Your task to perform on an android device: snooze an email in the gmail app Image 0: 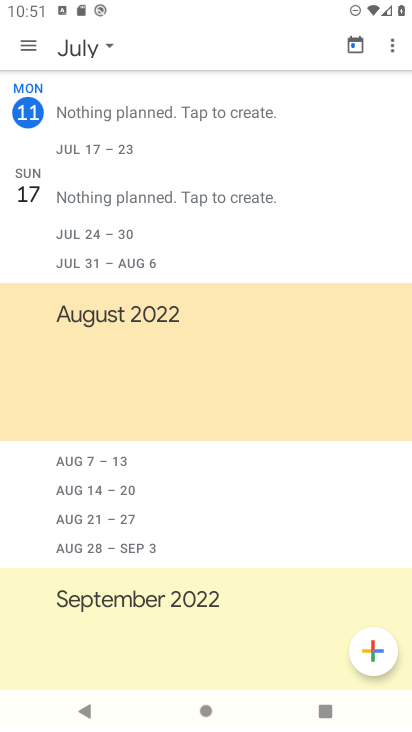
Step 0: press home button
Your task to perform on an android device: snooze an email in the gmail app Image 1: 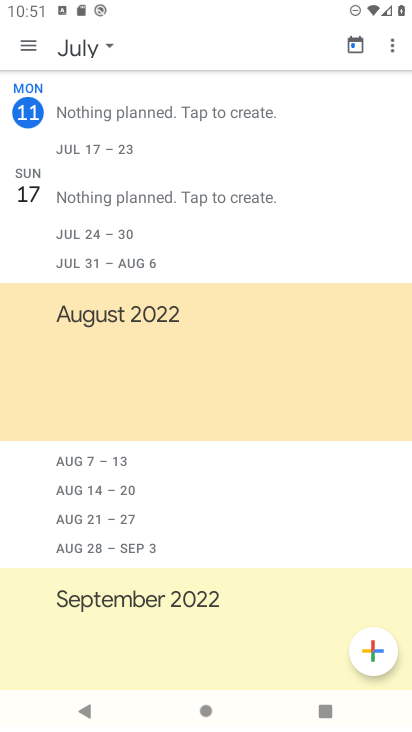
Step 1: drag from (394, 641) to (247, 59)
Your task to perform on an android device: snooze an email in the gmail app Image 2: 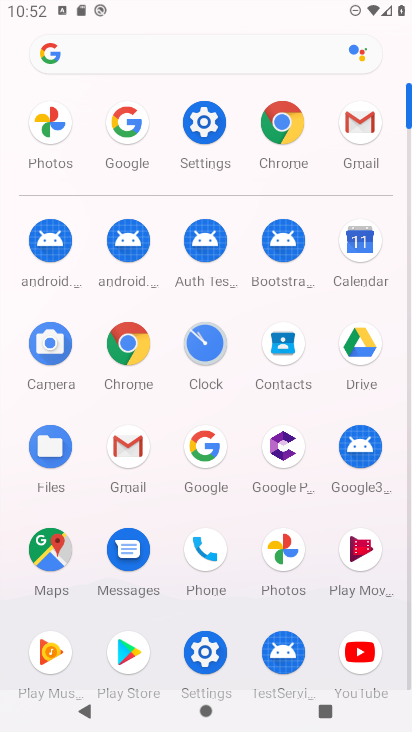
Step 2: click (361, 118)
Your task to perform on an android device: snooze an email in the gmail app Image 3: 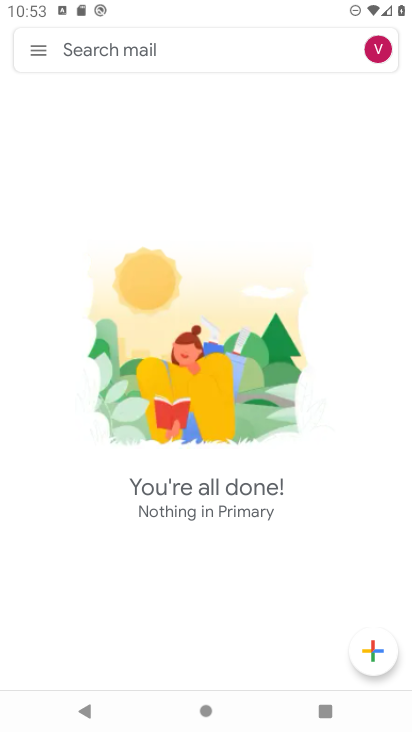
Step 3: click (31, 46)
Your task to perform on an android device: snooze an email in the gmail app Image 4: 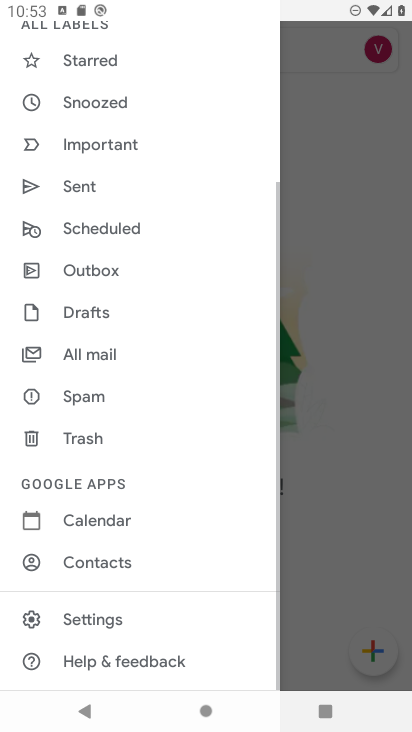
Step 4: click (109, 112)
Your task to perform on an android device: snooze an email in the gmail app Image 5: 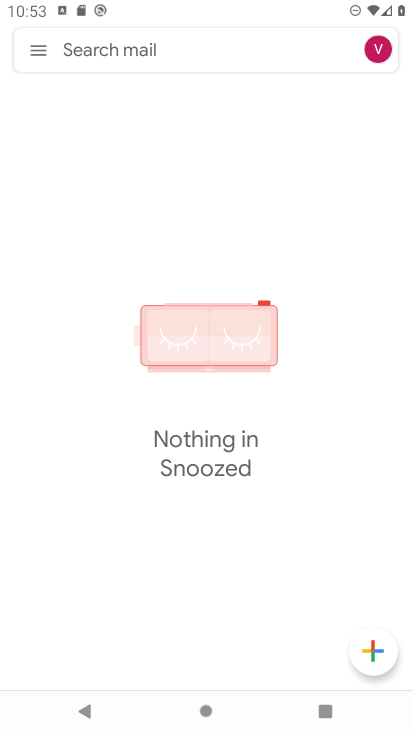
Step 5: task complete